Your task to perform on an android device: turn off javascript in the chrome app Image 0: 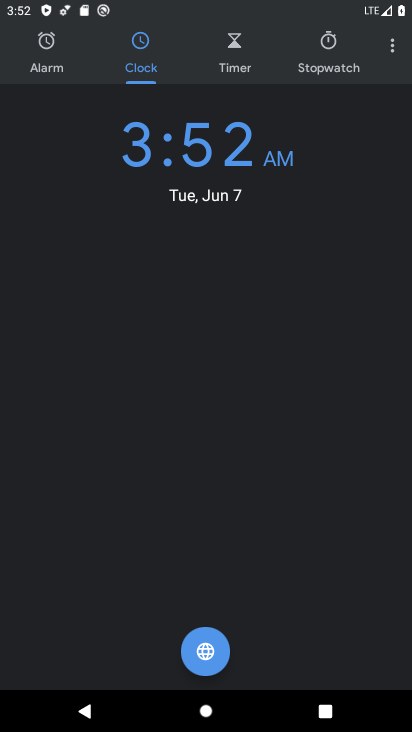
Step 0: press home button
Your task to perform on an android device: turn off javascript in the chrome app Image 1: 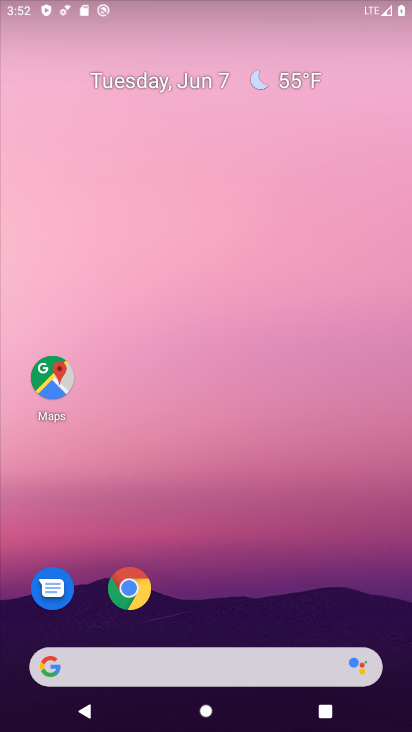
Step 1: drag from (213, 644) to (298, 114)
Your task to perform on an android device: turn off javascript in the chrome app Image 2: 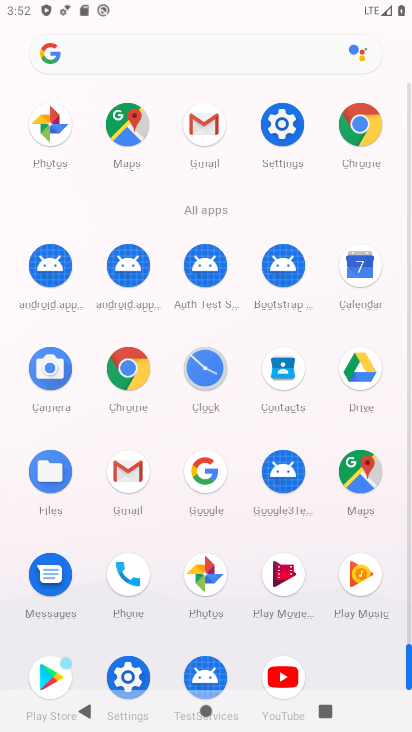
Step 2: click (120, 372)
Your task to perform on an android device: turn off javascript in the chrome app Image 3: 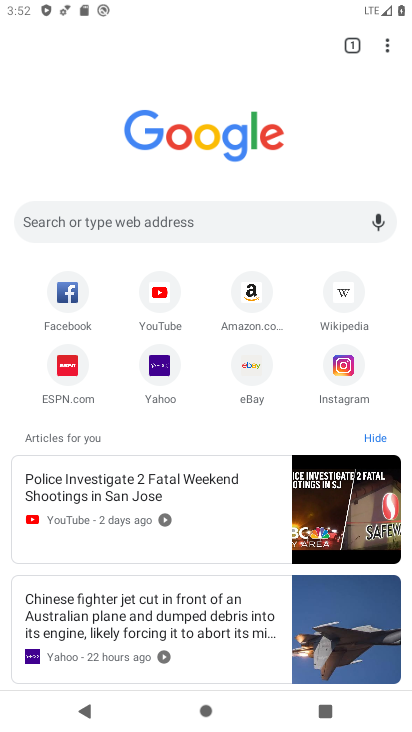
Step 3: drag from (389, 49) to (274, 366)
Your task to perform on an android device: turn off javascript in the chrome app Image 4: 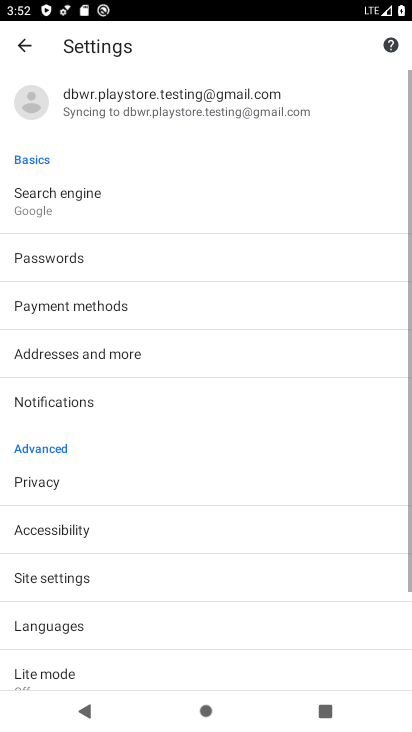
Step 4: drag from (175, 626) to (243, 332)
Your task to perform on an android device: turn off javascript in the chrome app Image 5: 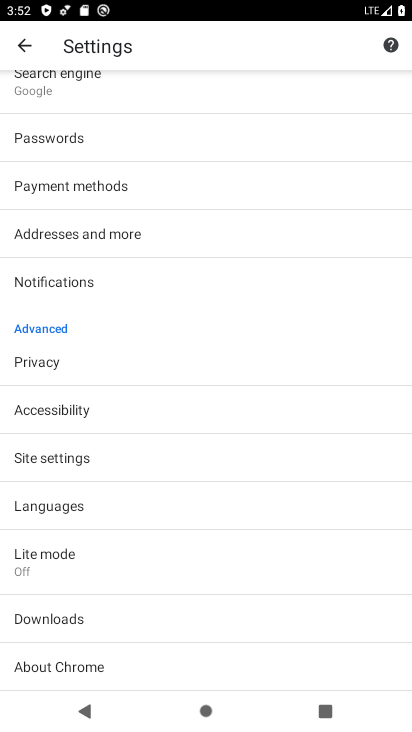
Step 5: click (102, 468)
Your task to perform on an android device: turn off javascript in the chrome app Image 6: 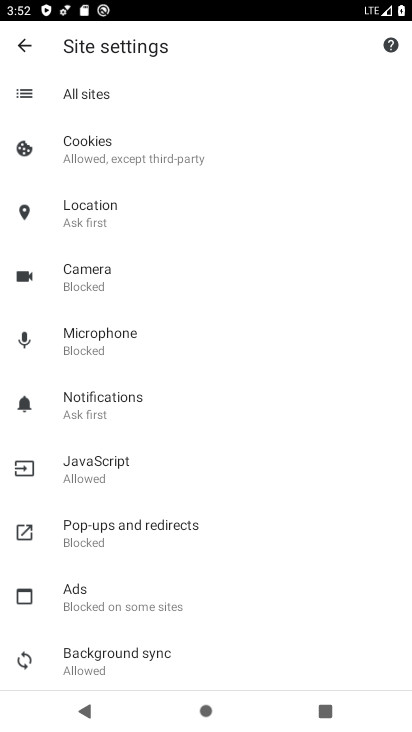
Step 6: click (129, 483)
Your task to perform on an android device: turn off javascript in the chrome app Image 7: 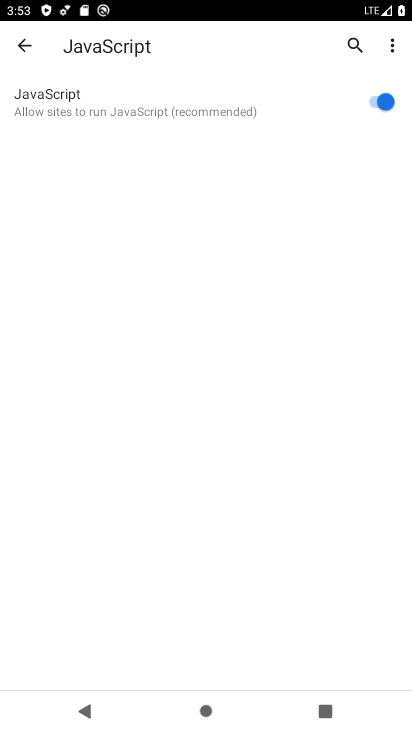
Step 7: click (366, 96)
Your task to perform on an android device: turn off javascript in the chrome app Image 8: 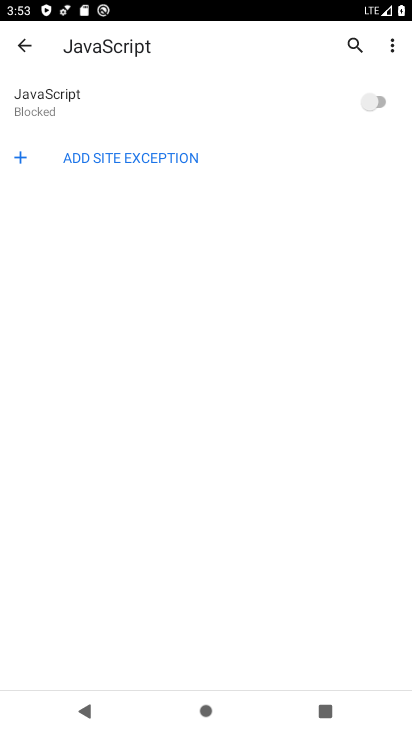
Step 8: task complete